Your task to perform on an android device: Open location settings Image 0: 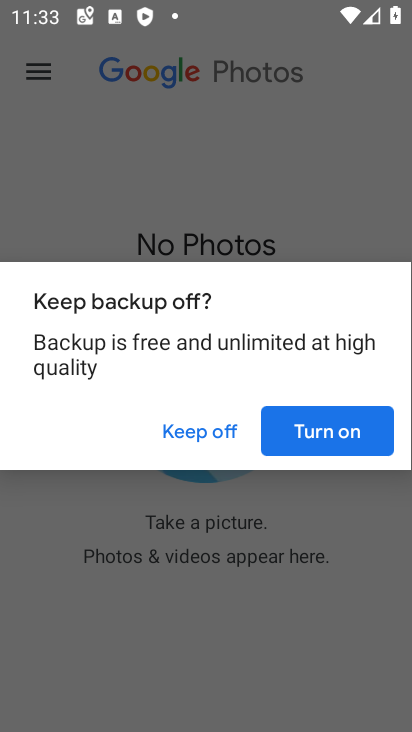
Step 0: press home button
Your task to perform on an android device: Open location settings Image 1: 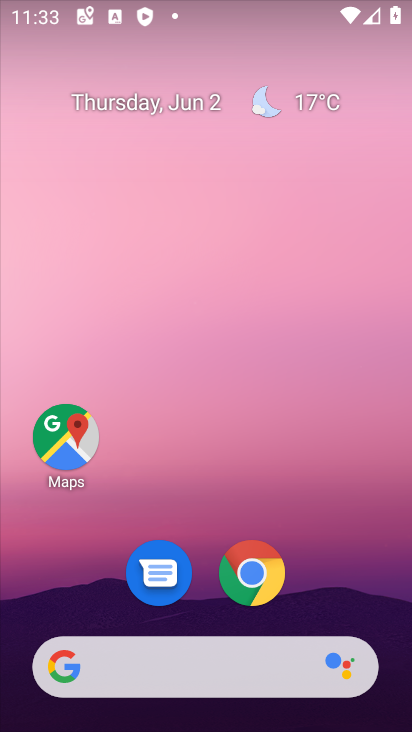
Step 1: drag from (330, 521) to (272, 0)
Your task to perform on an android device: Open location settings Image 2: 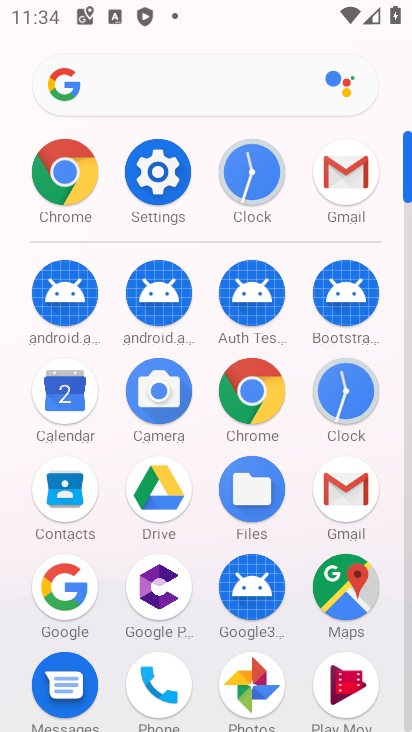
Step 2: click (153, 173)
Your task to perform on an android device: Open location settings Image 3: 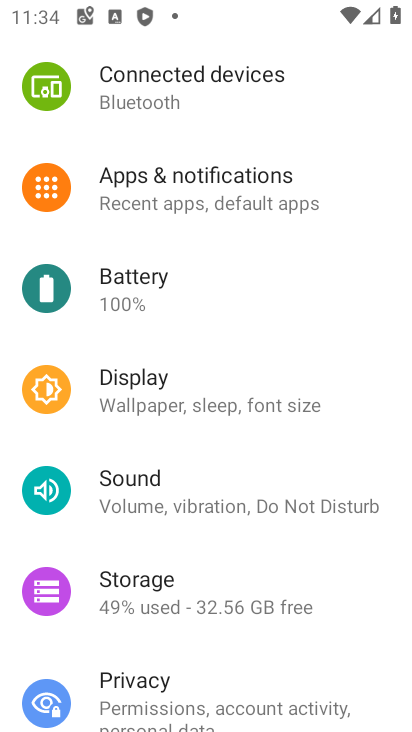
Step 3: drag from (231, 578) to (307, 165)
Your task to perform on an android device: Open location settings Image 4: 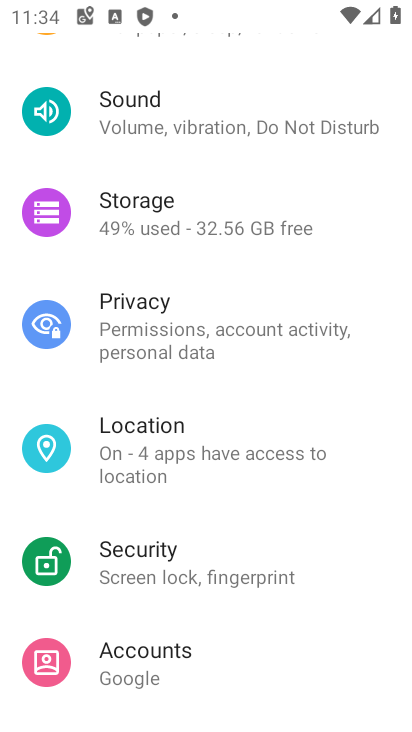
Step 4: click (201, 462)
Your task to perform on an android device: Open location settings Image 5: 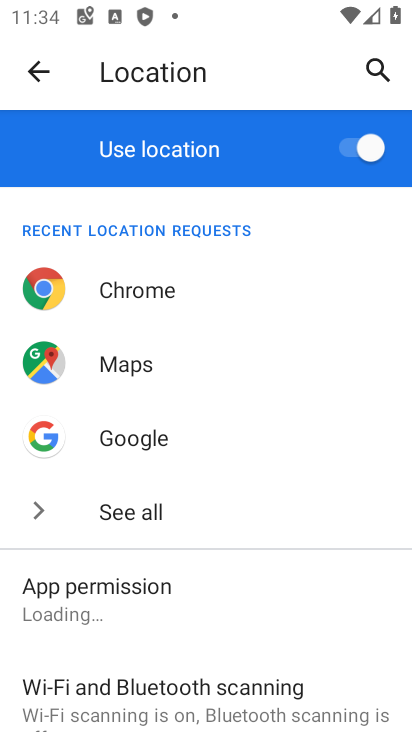
Step 5: task complete